Your task to perform on an android device: turn off notifications settings in the gmail app Image 0: 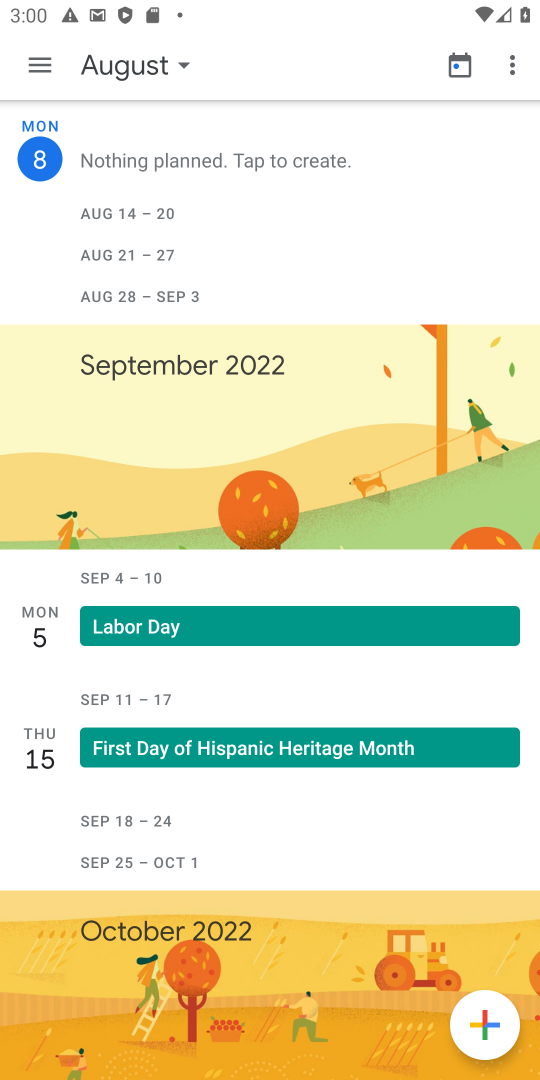
Step 0: press home button
Your task to perform on an android device: turn off notifications settings in the gmail app Image 1: 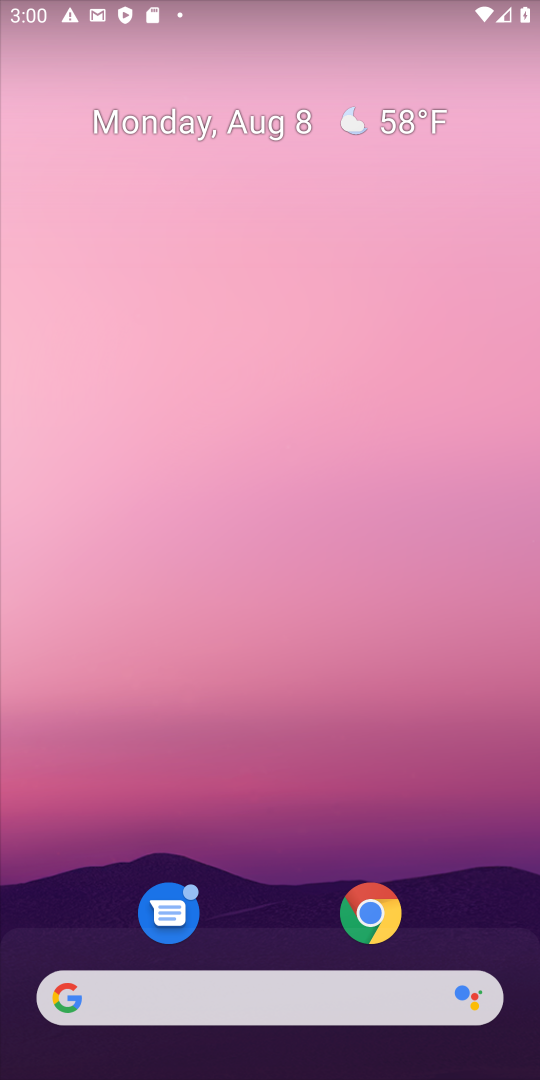
Step 1: drag from (448, 865) to (472, 152)
Your task to perform on an android device: turn off notifications settings in the gmail app Image 2: 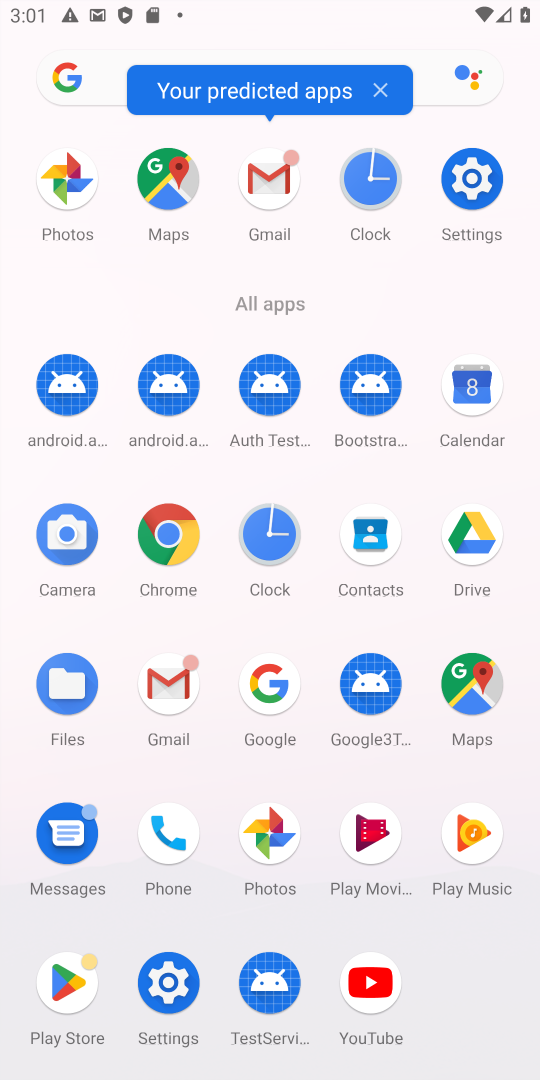
Step 2: click (170, 675)
Your task to perform on an android device: turn off notifications settings in the gmail app Image 3: 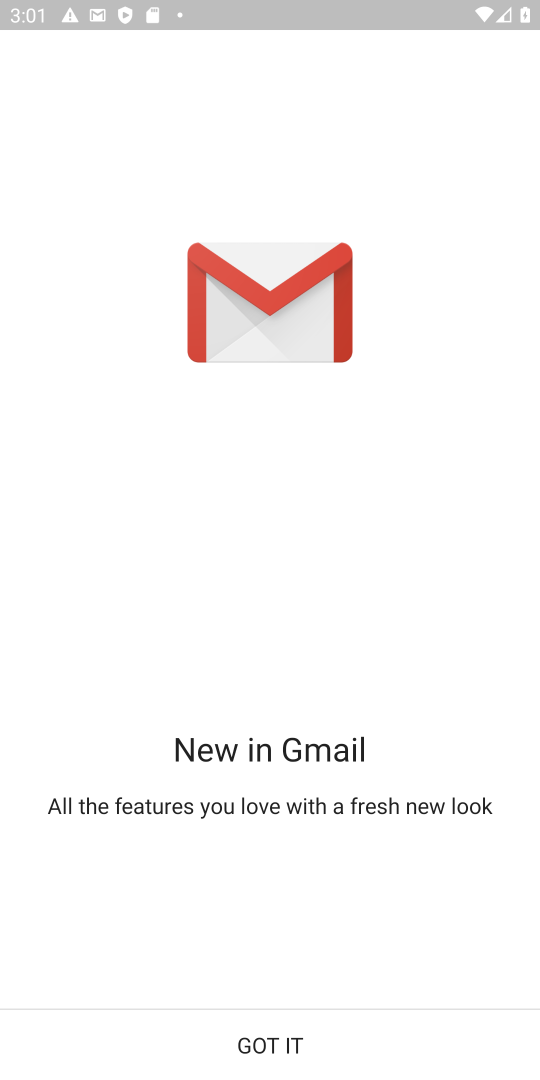
Step 3: click (261, 1036)
Your task to perform on an android device: turn off notifications settings in the gmail app Image 4: 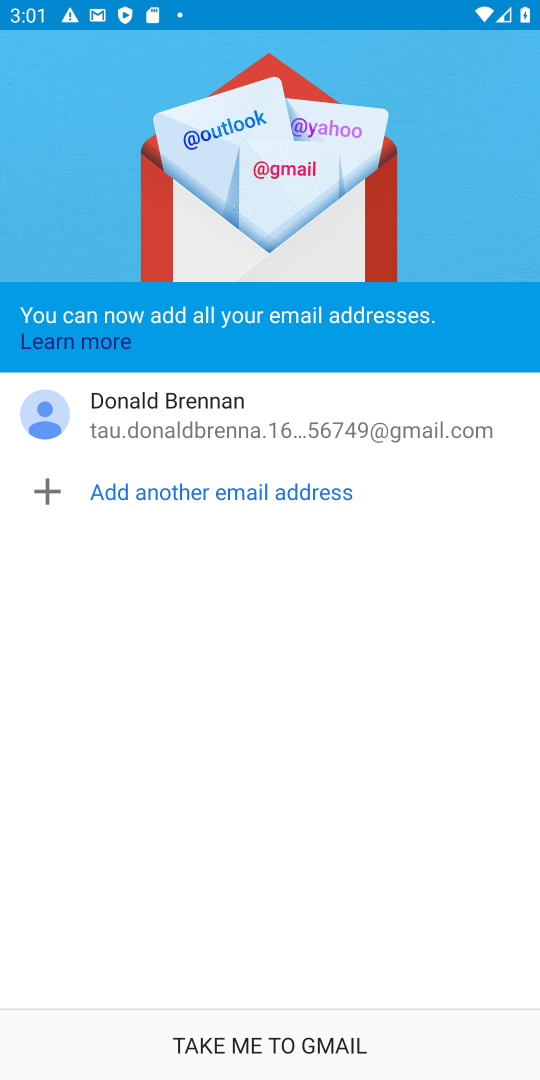
Step 4: click (261, 1036)
Your task to perform on an android device: turn off notifications settings in the gmail app Image 5: 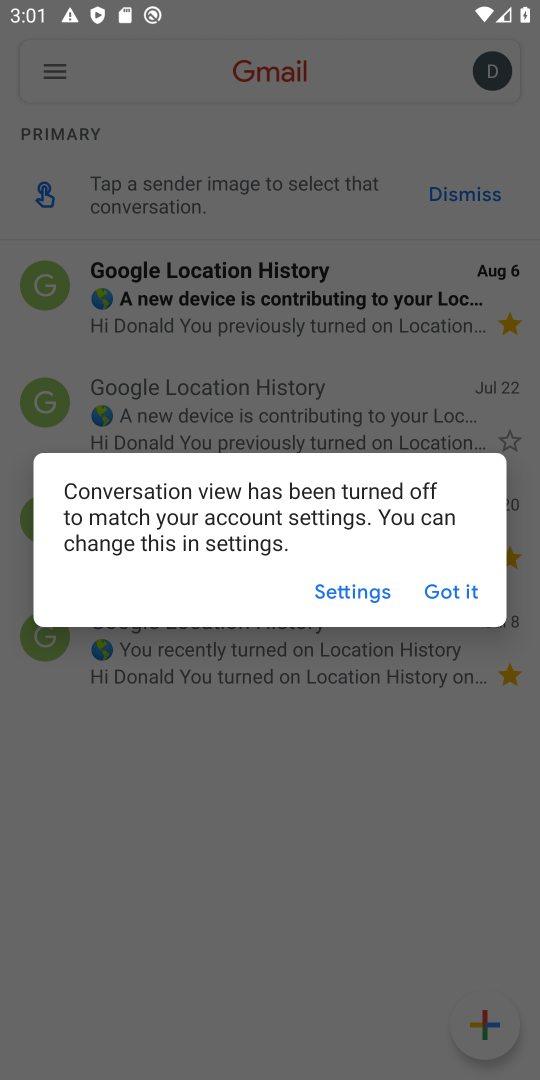
Step 5: click (454, 588)
Your task to perform on an android device: turn off notifications settings in the gmail app Image 6: 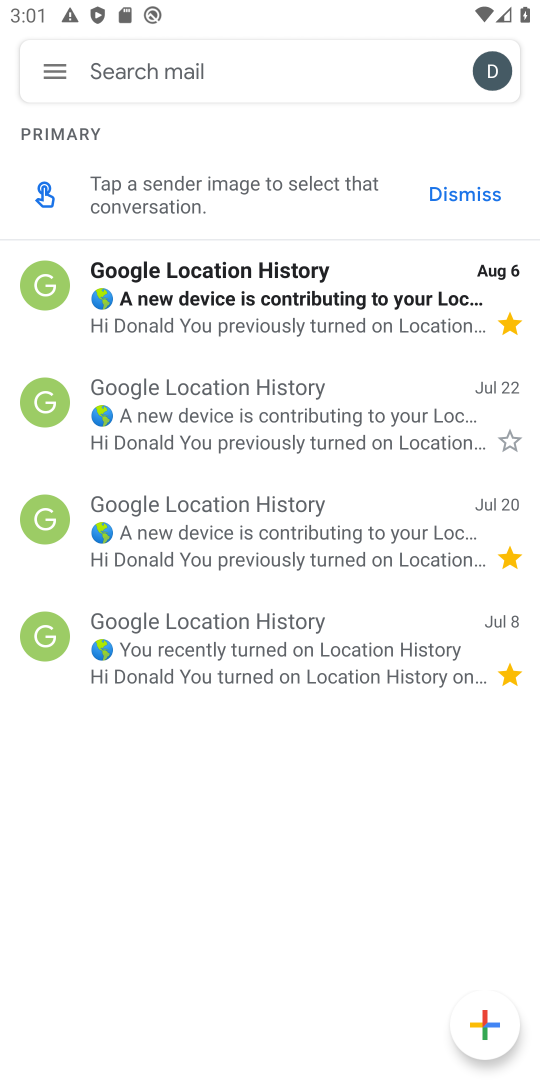
Step 6: click (48, 72)
Your task to perform on an android device: turn off notifications settings in the gmail app Image 7: 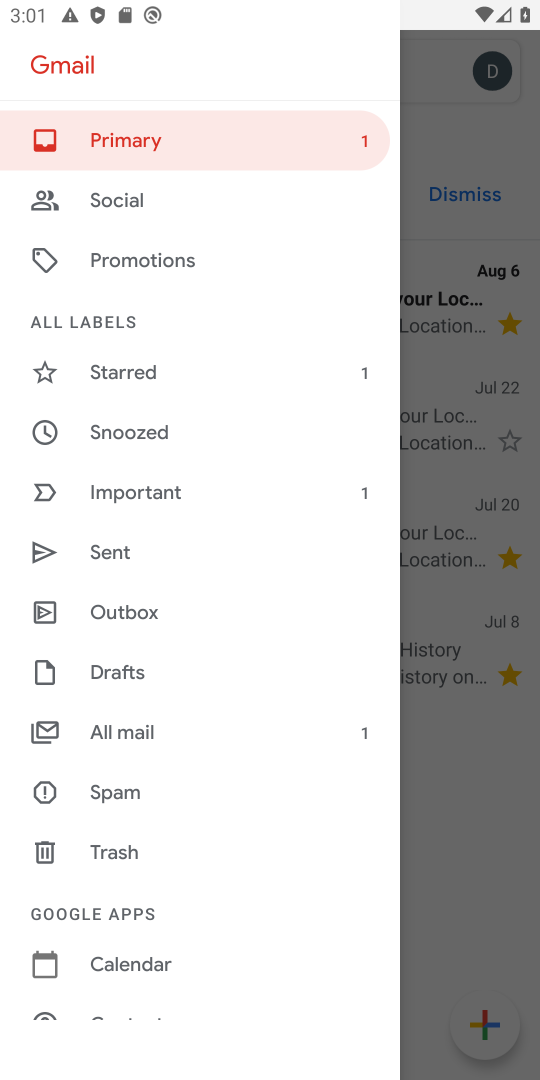
Step 7: drag from (281, 651) to (276, 403)
Your task to perform on an android device: turn off notifications settings in the gmail app Image 8: 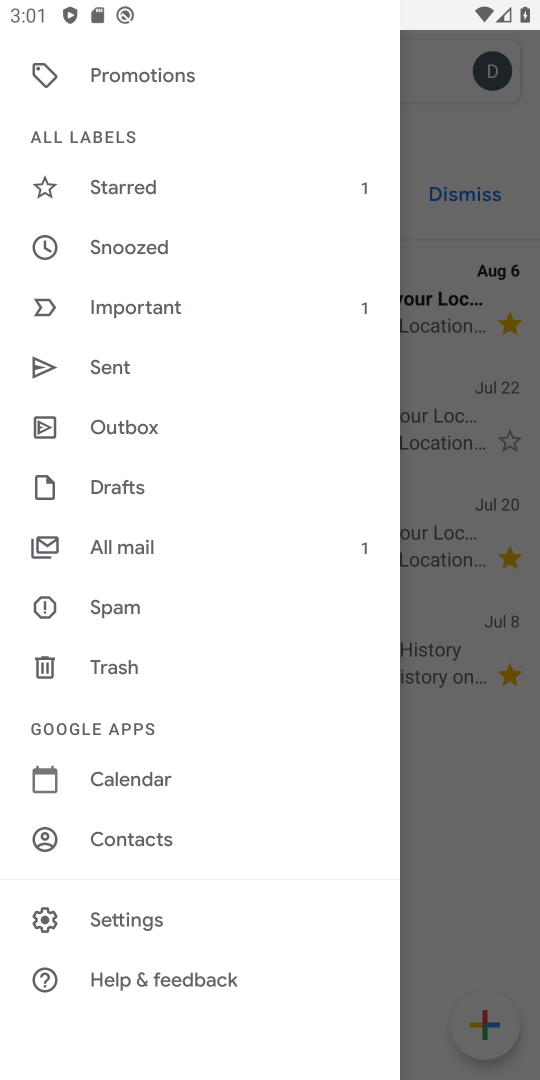
Step 8: click (226, 907)
Your task to perform on an android device: turn off notifications settings in the gmail app Image 9: 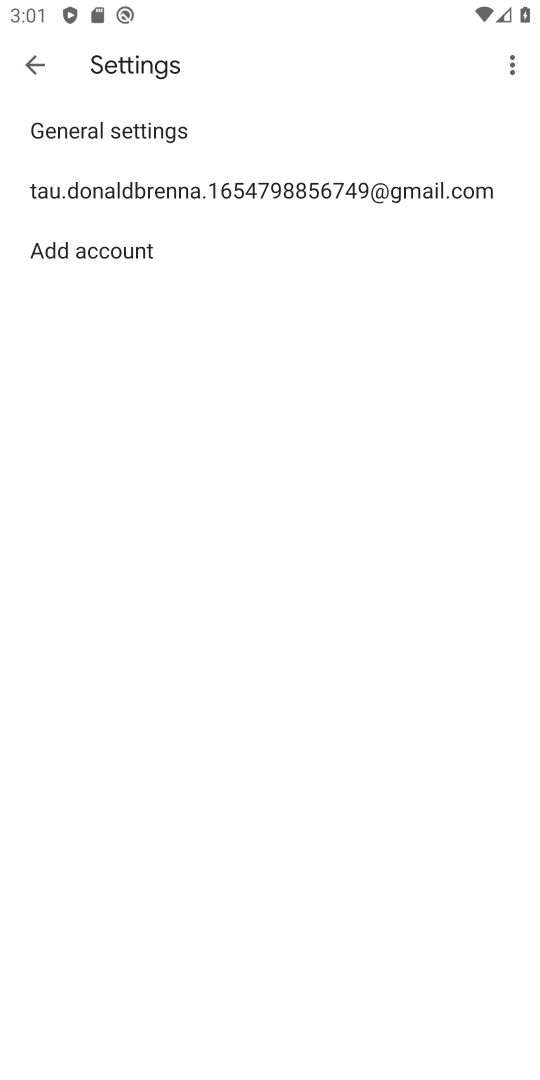
Step 9: click (377, 186)
Your task to perform on an android device: turn off notifications settings in the gmail app Image 10: 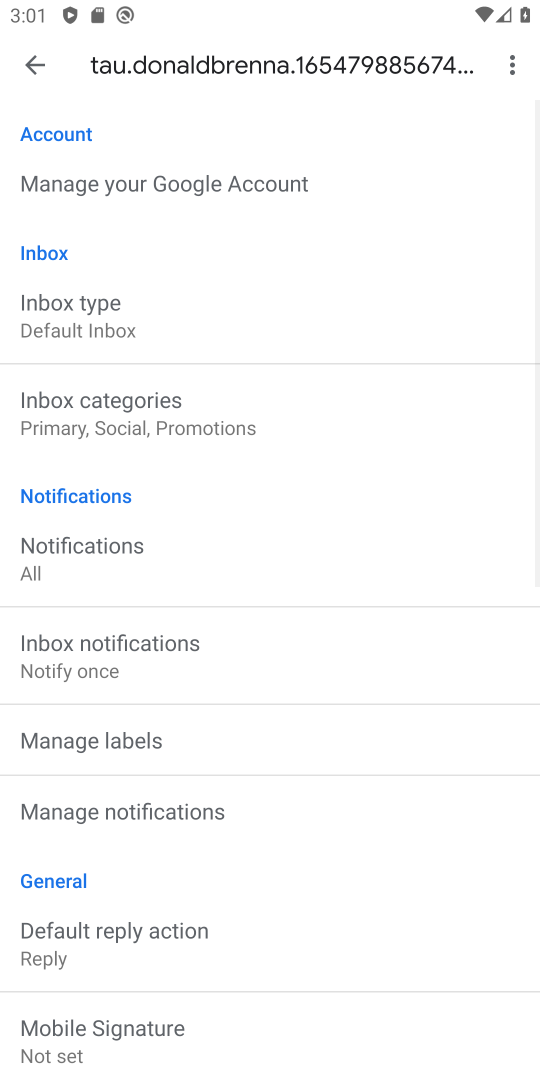
Step 10: drag from (399, 623) to (411, 430)
Your task to perform on an android device: turn off notifications settings in the gmail app Image 11: 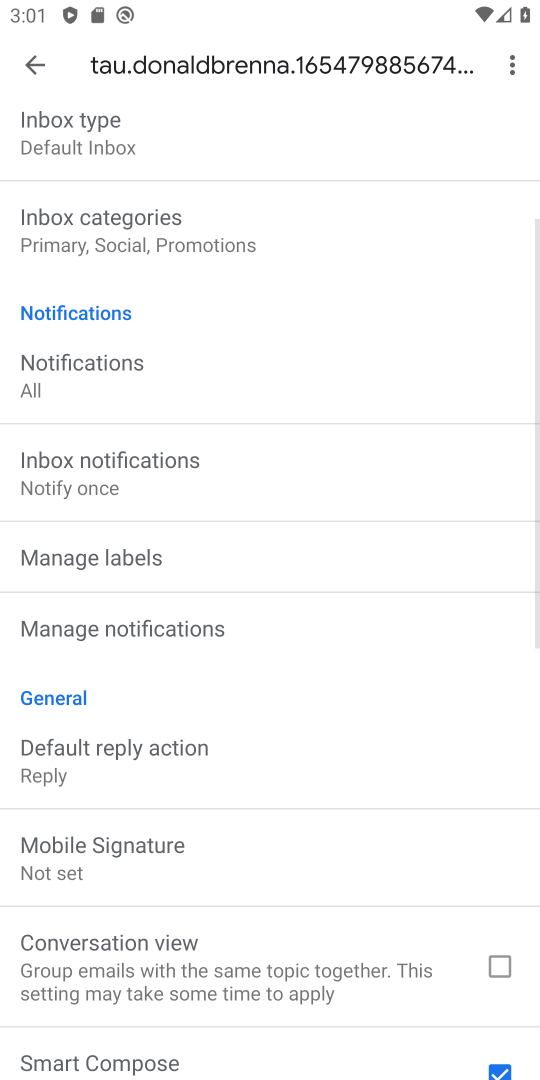
Step 11: drag from (392, 650) to (410, 379)
Your task to perform on an android device: turn off notifications settings in the gmail app Image 12: 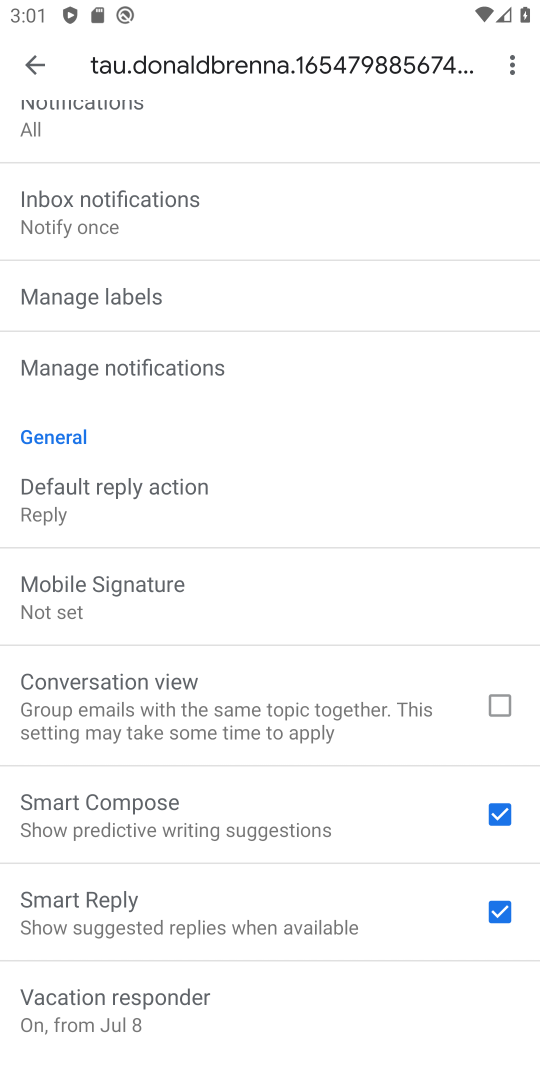
Step 12: click (303, 356)
Your task to perform on an android device: turn off notifications settings in the gmail app Image 13: 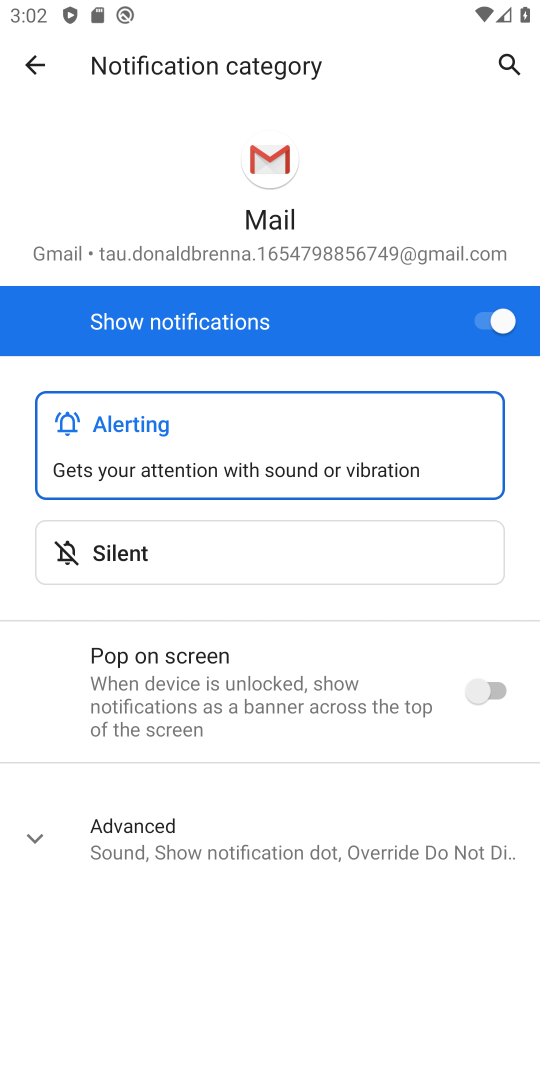
Step 13: click (495, 324)
Your task to perform on an android device: turn off notifications settings in the gmail app Image 14: 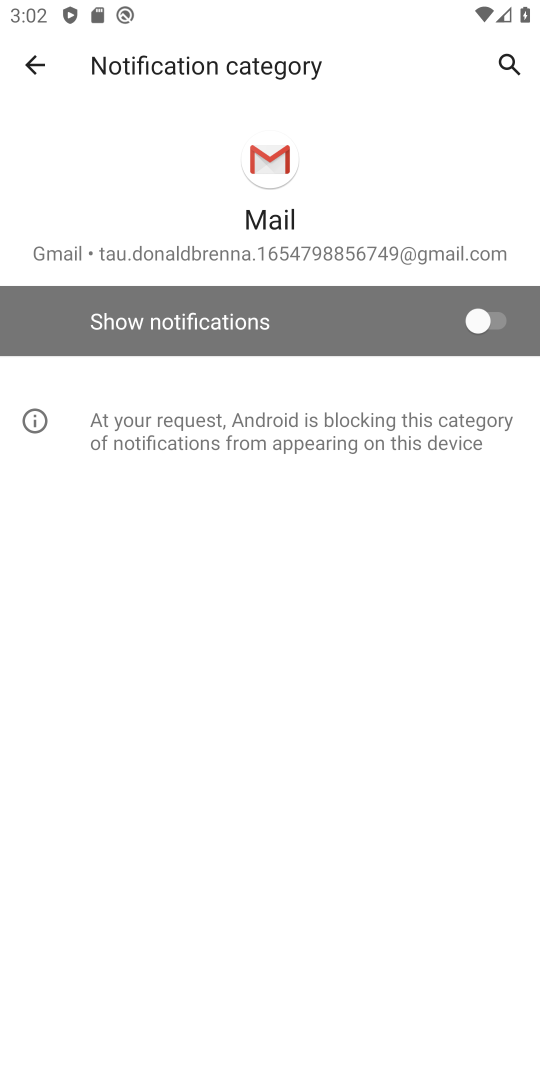
Step 14: task complete